Your task to perform on an android device: Play the last video I watched on Youtube Image 0: 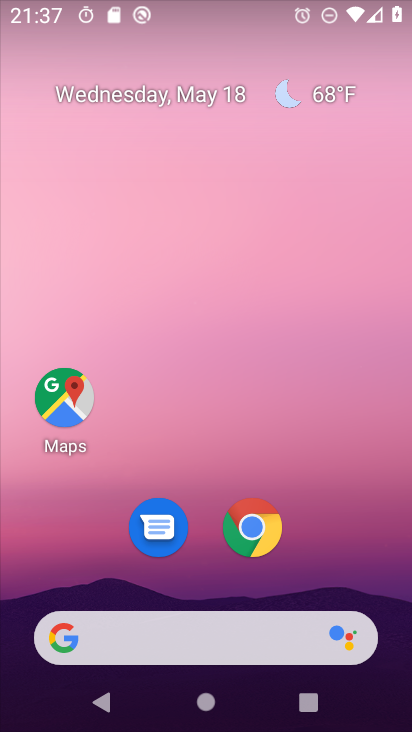
Step 0: drag from (383, 682) to (317, 165)
Your task to perform on an android device: Play the last video I watched on Youtube Image 1: 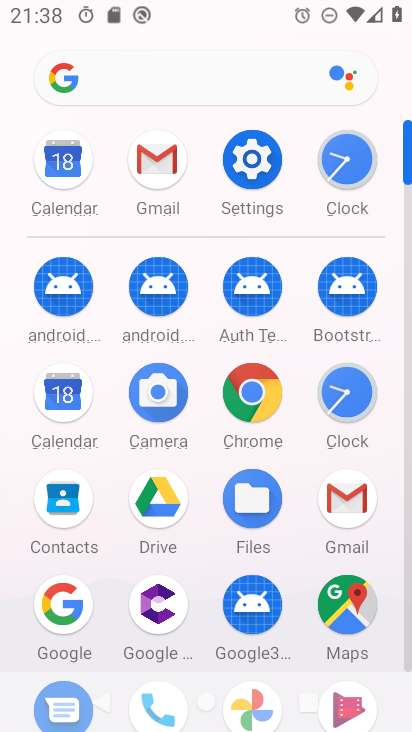
Step 1: drag from (404, 131) to (399, 41)
Your task to perform on an android device: Play the last video I watched on Youtube Image 2: 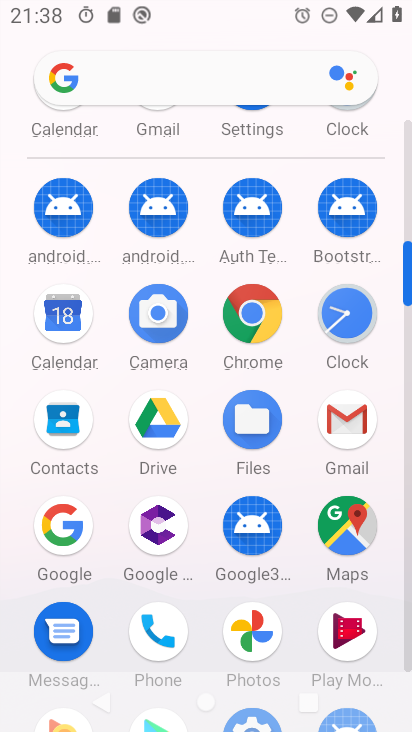
Step 2: drag from (407, 252) to (411, 104)
Your task to perform on an android device: Play the last video I watched on Youtube Image 3: 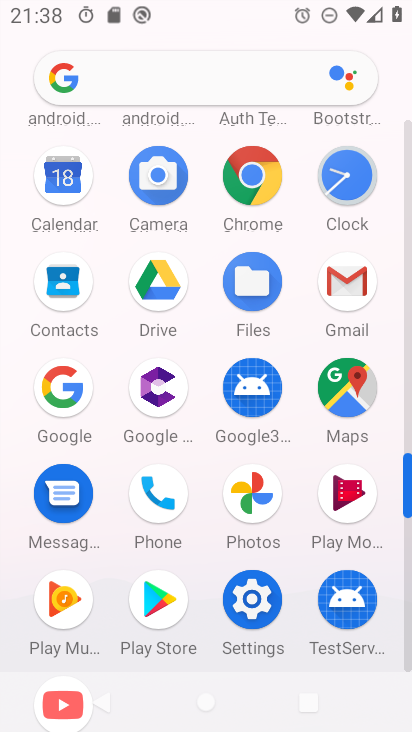
Step 3: drag from (406, 457) to (388, 292)
Your task to perform on an android device: Play the last video I watched on Youtube Image 4: 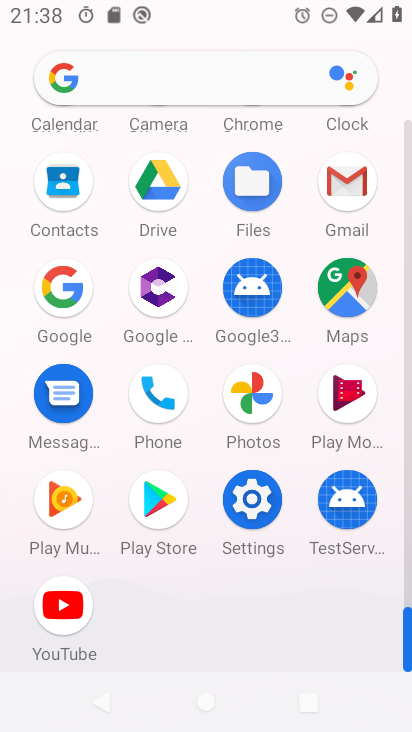
Step 4: click (58, 608)
Your task to perform on an android device: Play the last video I watched on Youtube Image 5: 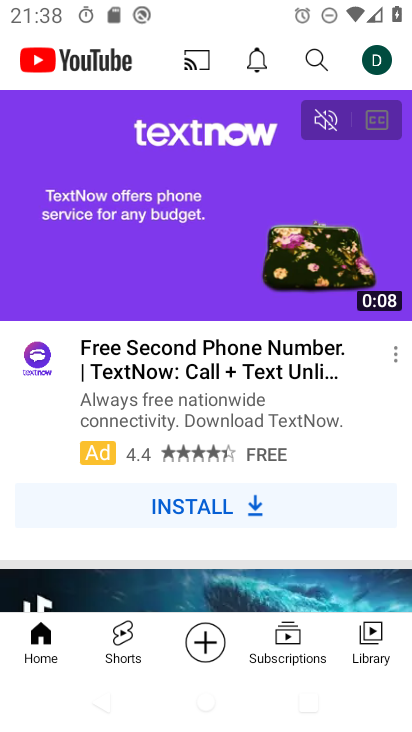
Step 5: click (375, 642)
Your task to perform on an android device: Play the last video I watched on Youtube Image 6: 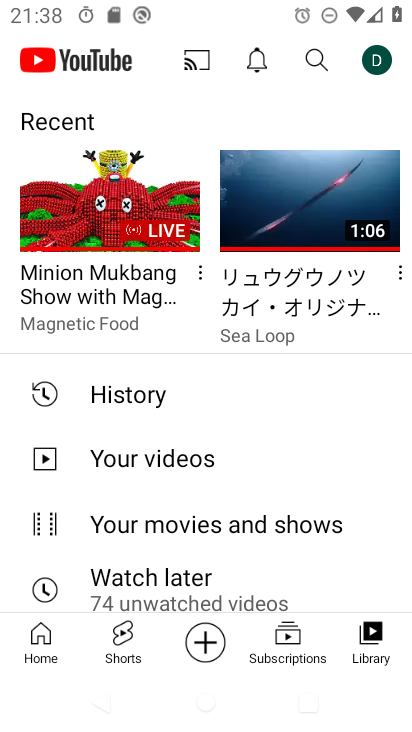
Step 6: click (136, 168)
Your task to perform on an android device: Play the last video I watched on Youtube Image 7: 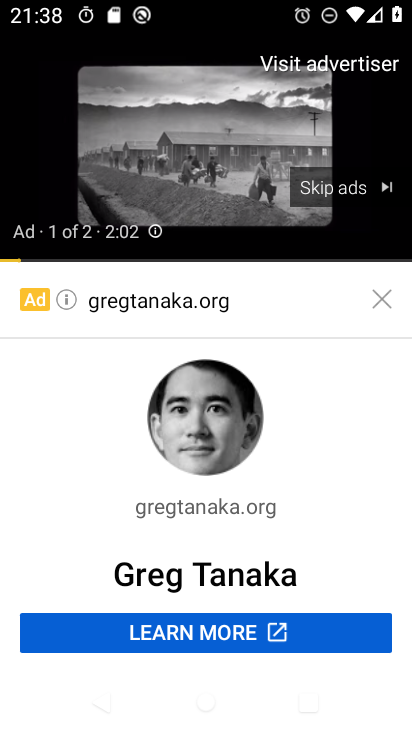
Step 7: click (345, 193)
Your task to perform on an android device: Play the last video I watched on Youtube Image 8: 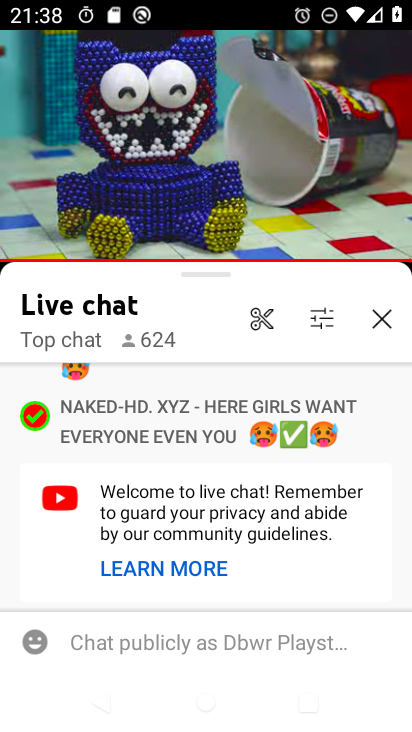
Step 8: click (207, 149)
Your task to perform on an android device: Play the last video I watched on Youtube Image 9: 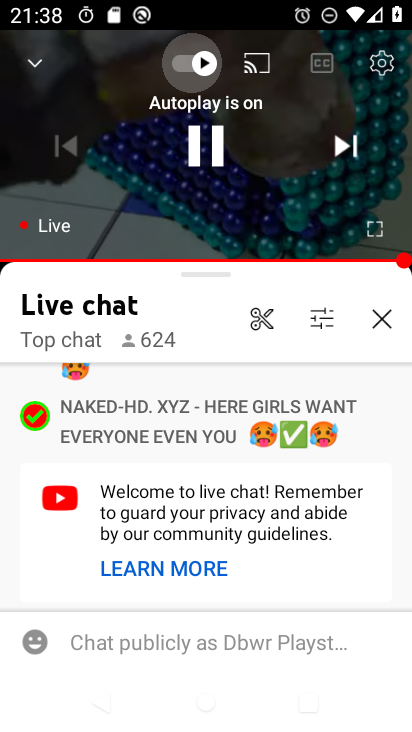
Step 9: task complete